Your task to perform on an android device: find photos in the google photos app Image 0: 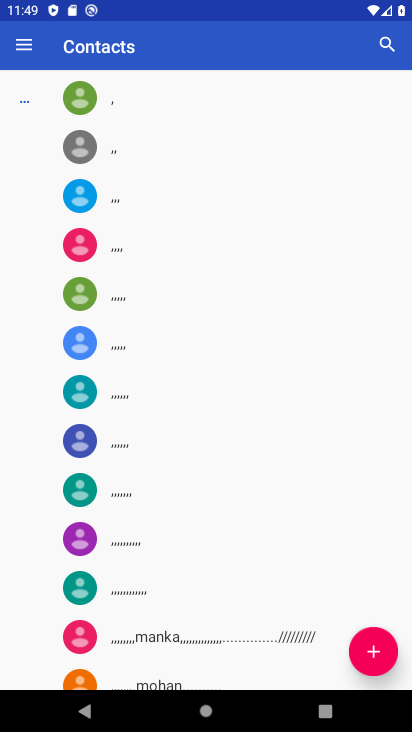
Step 0: press home button
Your task to perform on an android device: find photos in the google photos app Image 1: 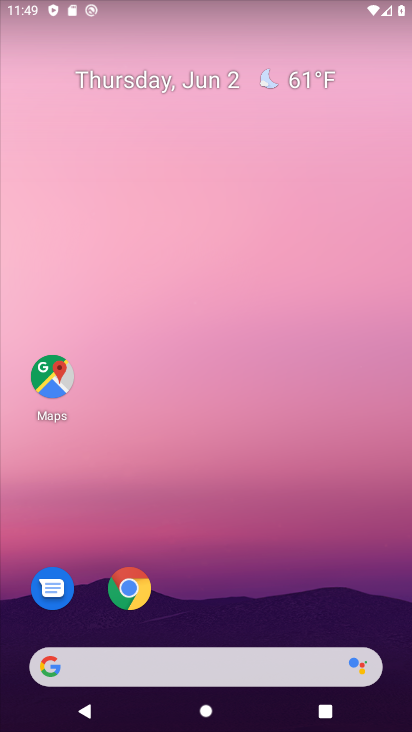
Step 1: drag from (204, 593) to (185, 207)
Your task to perform on an android device: find photos in the google photos app Image 2: 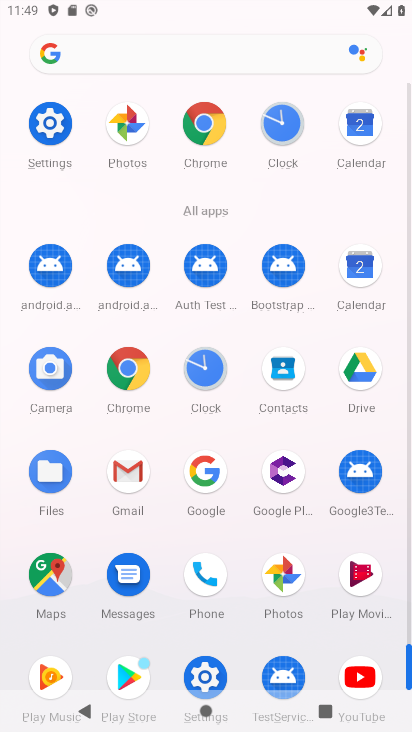
Step 2: click (296, 573)
Your task to perform on an android device: find photos in the google photos app Image 3: 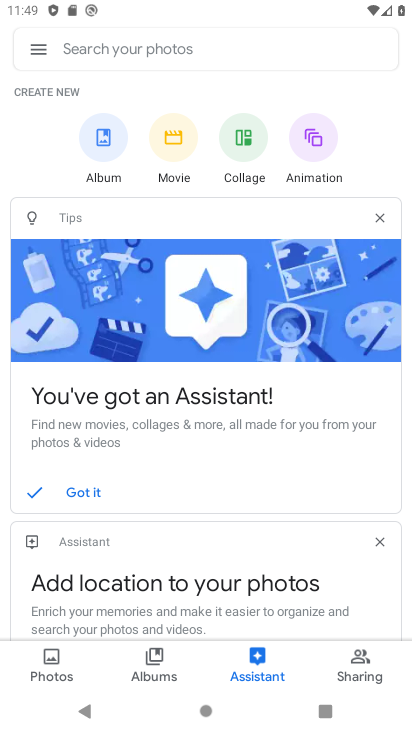
Step 3: click (60, 675)
Your task to perform on an android device: find photos in the google photos app Image 4: 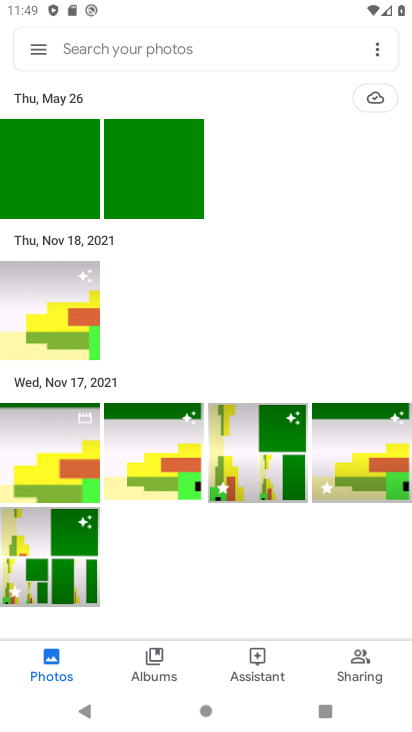
Step 4: task complete